Your task to perform on an android device: turn off airplane mode Image 0: 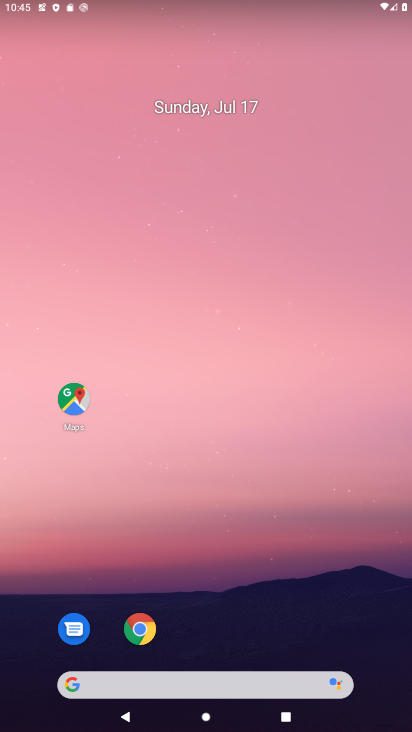
Step 0: drag from (302, 649) to (299, 40)
Your task to perform on an android device: turn off airplane mode Image 1: 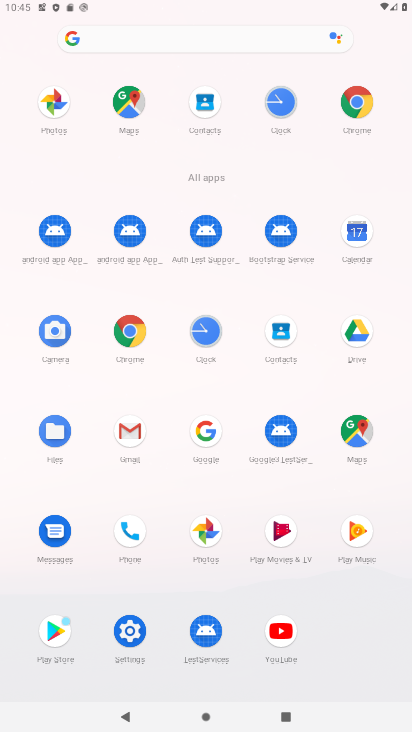
Step 1: click (127, 634)
Your task to perform on an android device: turn off airplane mode Image 2: 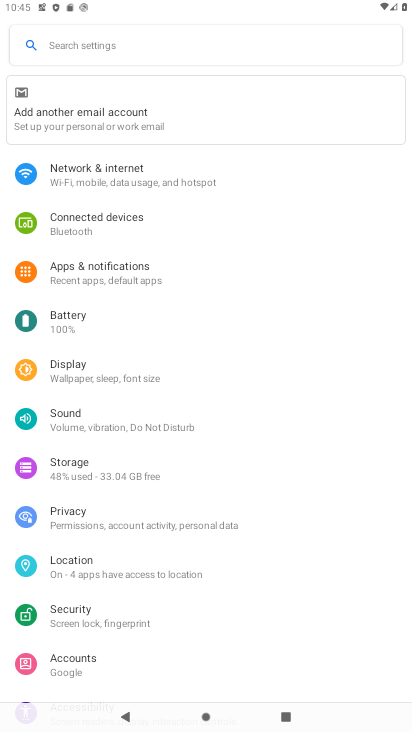
Step 2: click (113, 169)
Your task to perform on an android device: turn off airplane mode Image 3: 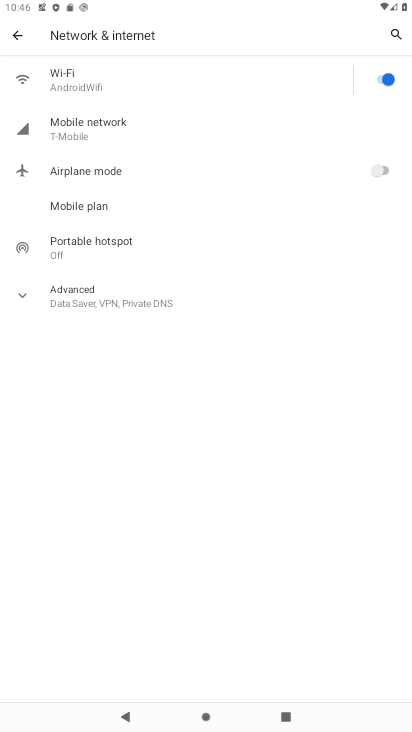
Step 3: task complete